Your task to perform on an android device: turn off notifications in google photos Image 0: 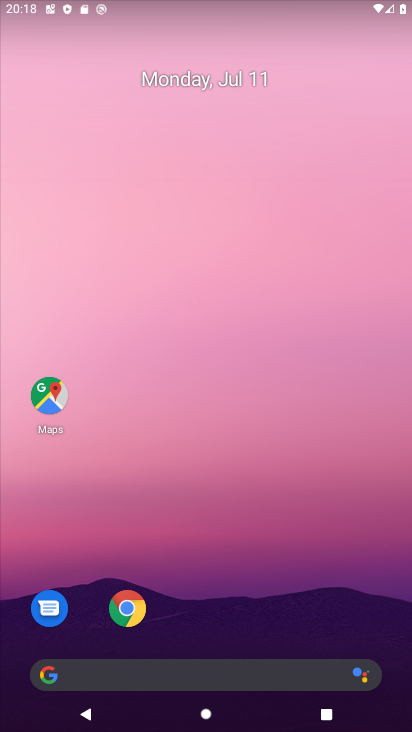
Step 0: drag from (280, 601) to (241, 108)
Your task to perform on an android device: turn off notifications in google photos Image 1: 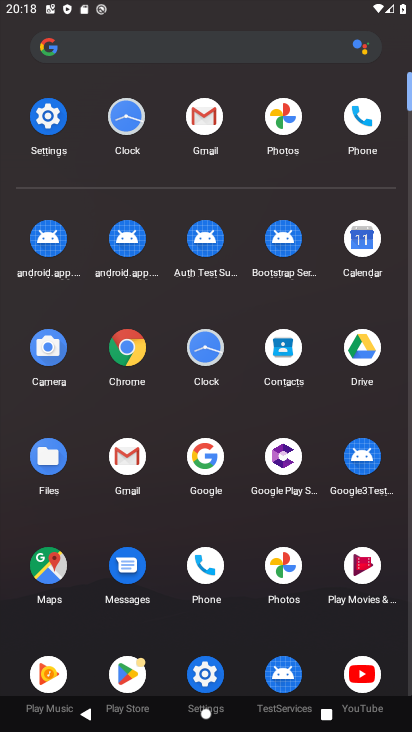
Step 1: click (280, 596)
Your task to perform on an android device: turn off notifications in google photos Image 2: 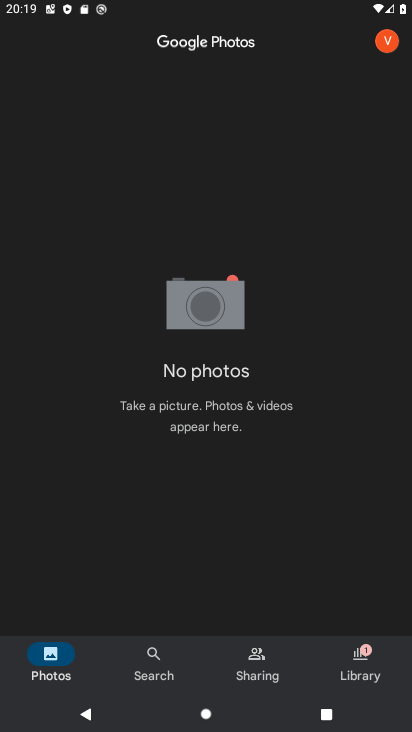
Step 2: click (389, 55)
Your task to perform on an android device: turn off notifications in google photos Image 3: 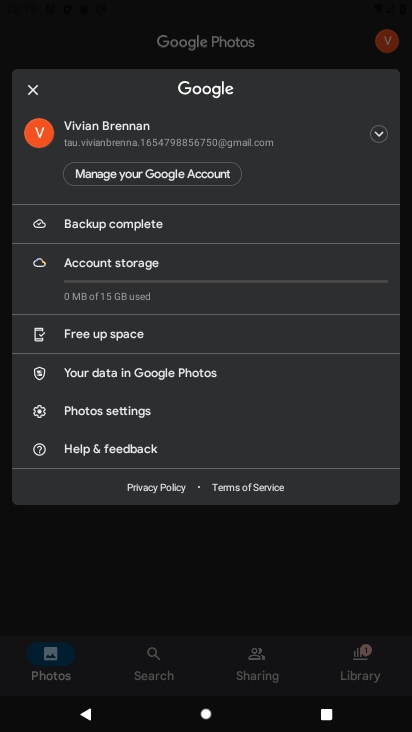
Step 3: click (168, 412)
Your task to perform on an android device: turn off notifications in google photos Image 4: 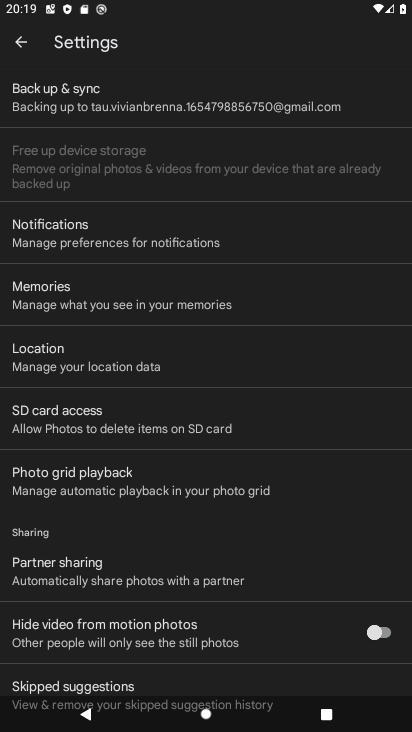
Step 4: click (114, 255)
Your task to perform on an android device: turn off notifications in google photos Image 5: 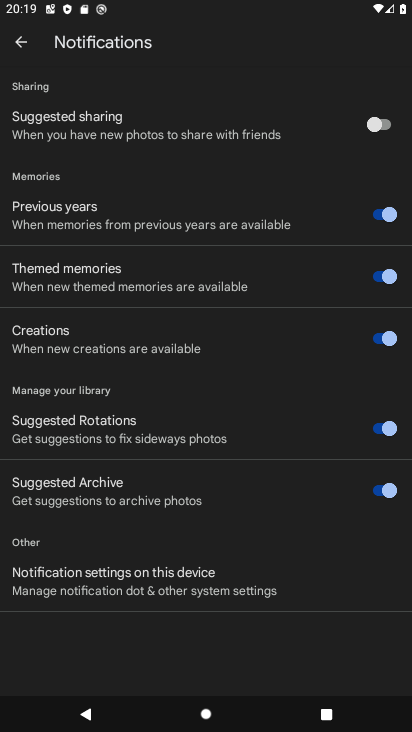
Step 5: task complete